Your task to perform on an android device: delete a single message in the gmail app Image 0: 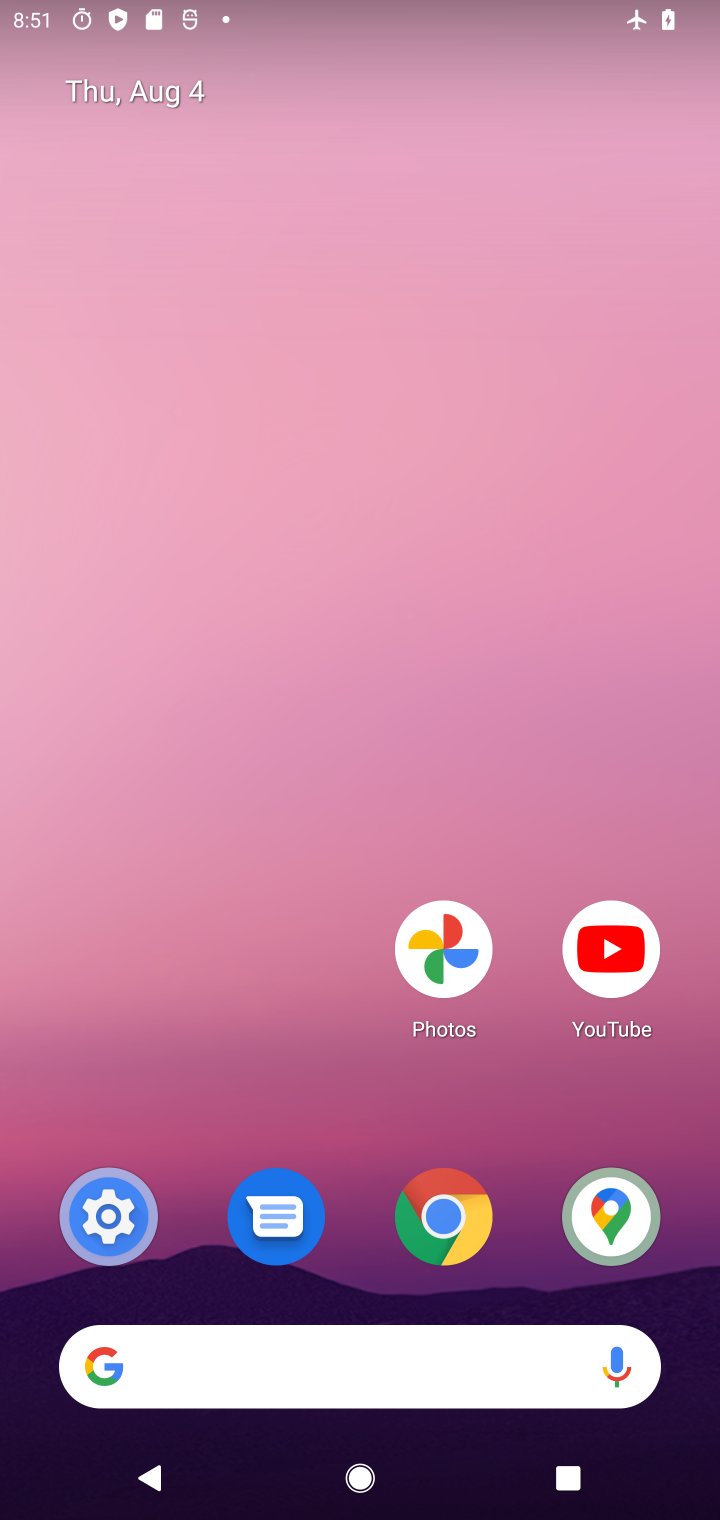
Step 0: drag from (361, 1301) to (316, 137)
Your task to perform on an android device: delete a single message in the gmail app Image 1: 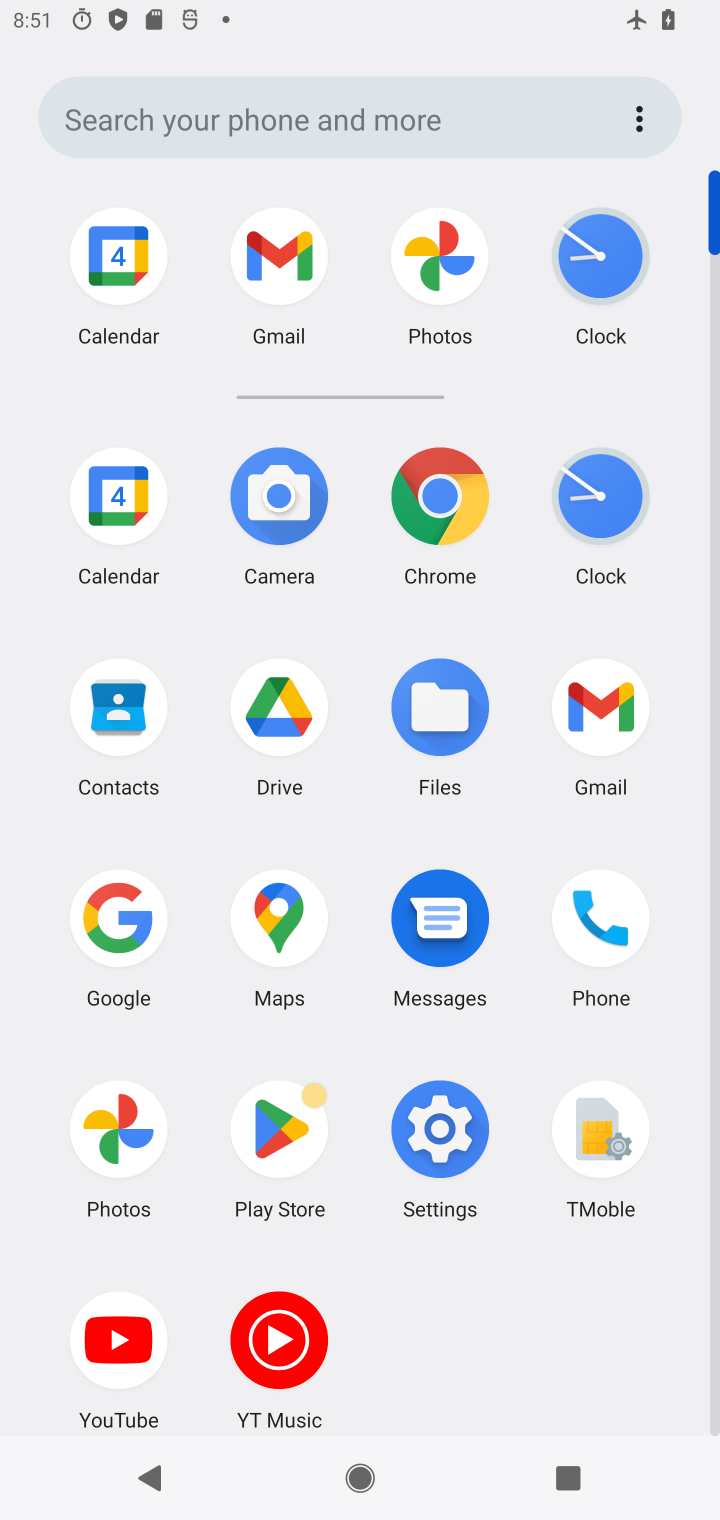
Step 1: click (605, 714)
Your task to perform on an android device: delete a single message in the gmail app Image 2: 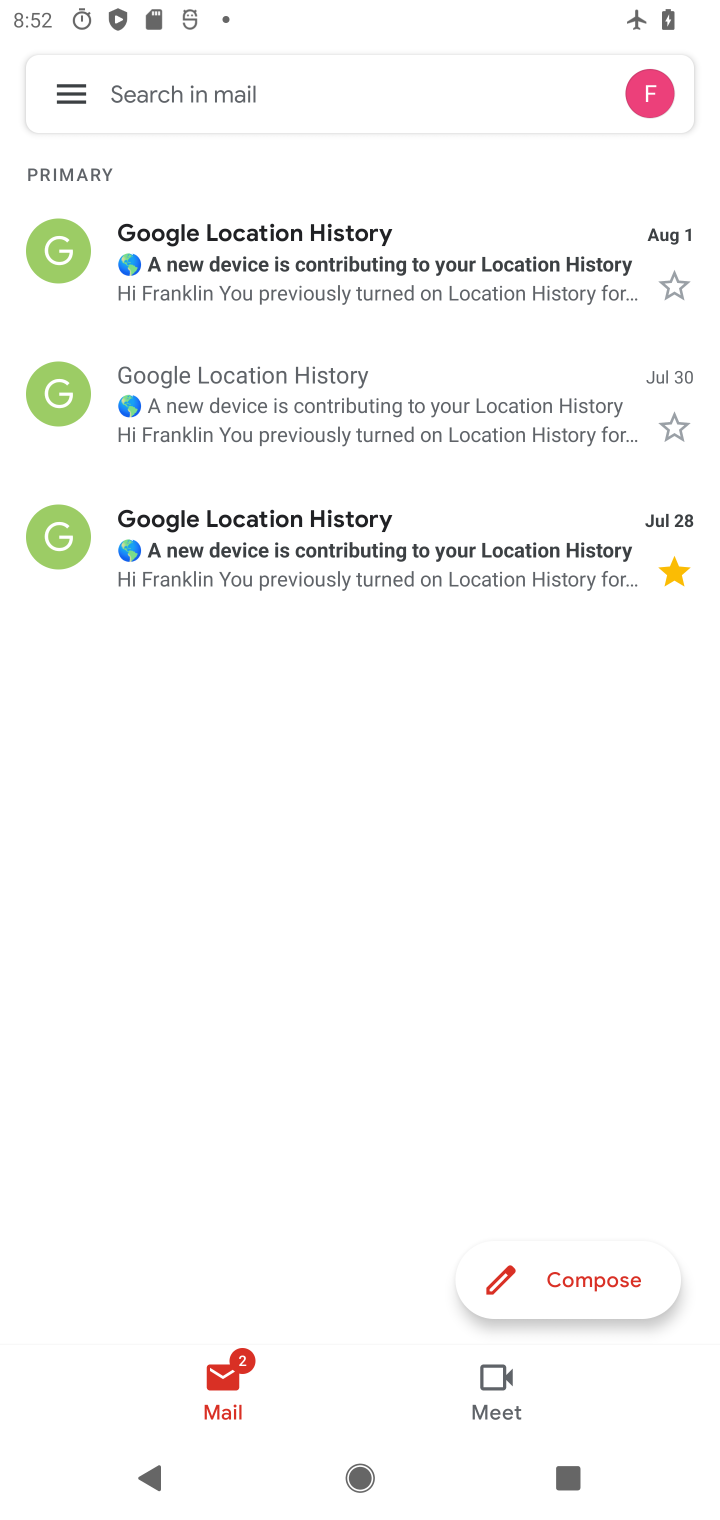
Step 2: click (337, 276)
Your task to perform on an android device: delete a single message in the gmail app Image 3: 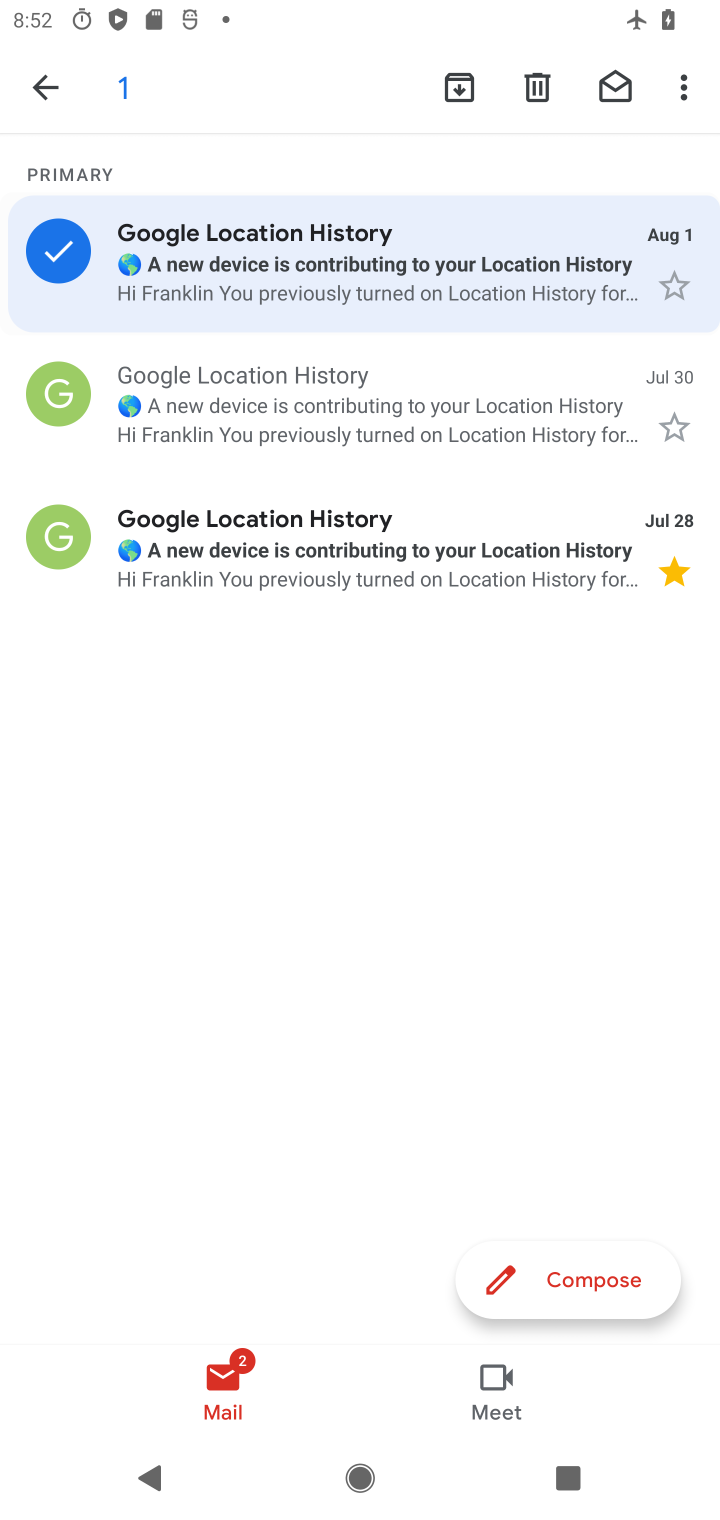
Step 3: click (539, 91)
Your task to perform on an android device: delete a single message in the gmail app Image 4: 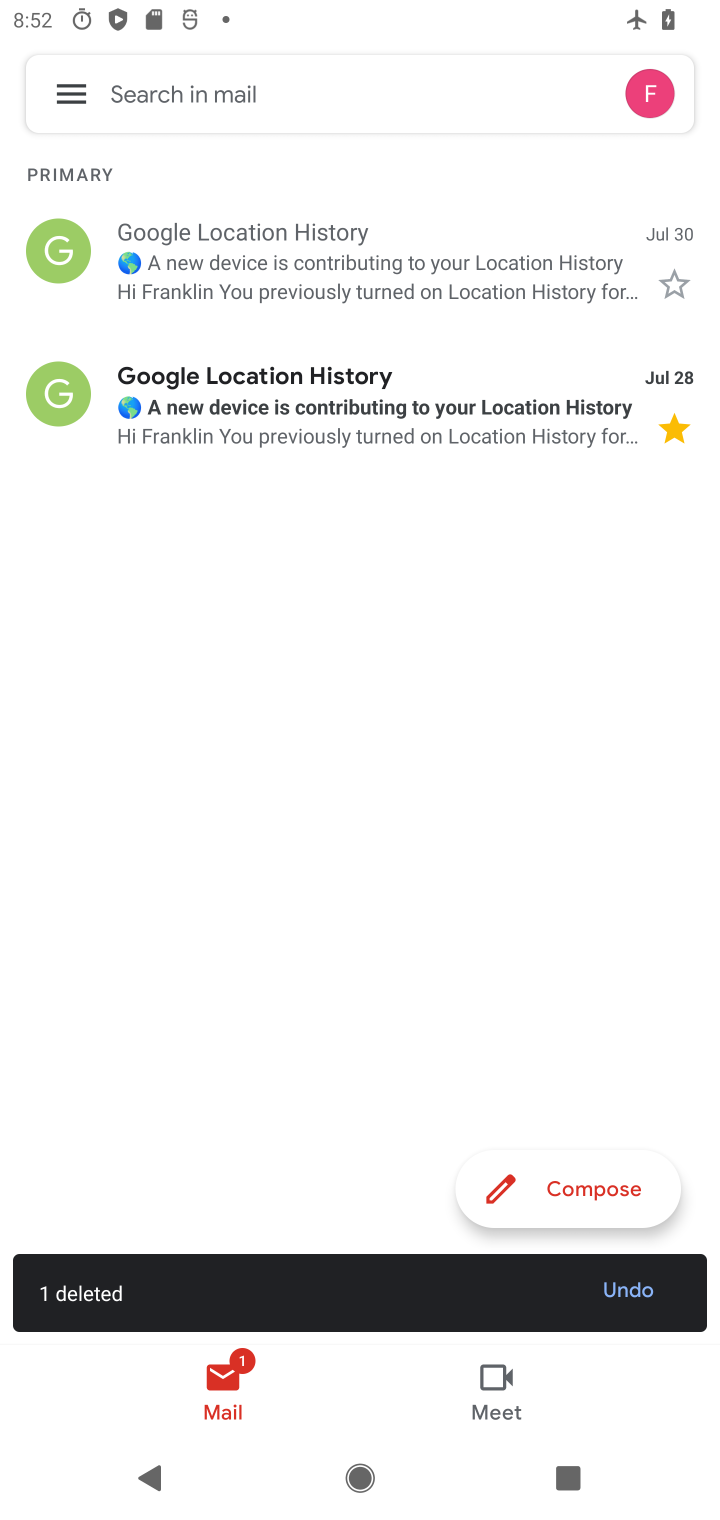
Step 4: task complete